Your task to perform on an android device: Open Android settings Image 0: 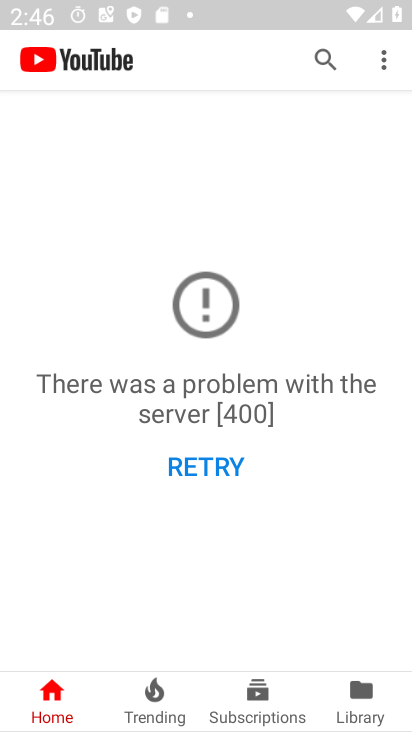
Step 0: press back button
Your task to perform on an android device: Open Android settings Image 1: 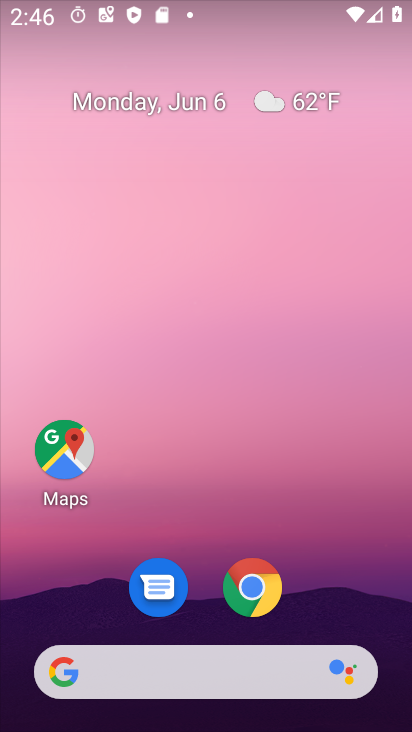
Step 1: drag from (320, 560) to (166, 57)
Your task to perform on an android device: Open Android settings Image 2: 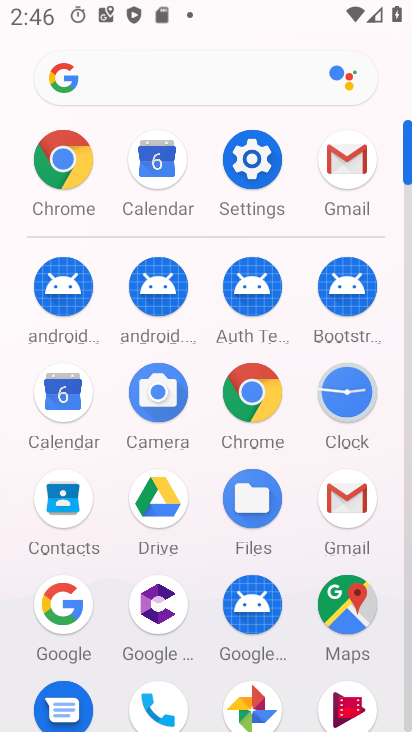
Step 2: click (250, 155)
Your task to perform on an android device: Open Android settings Image 3: 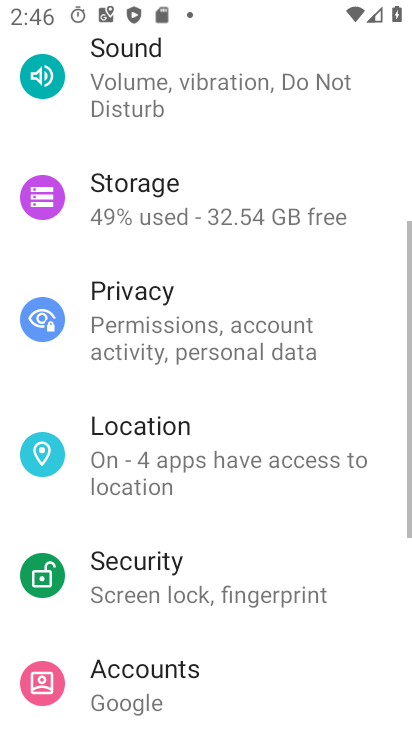
Step 3: task complete